Your task to perform on an android device: toggle improve location accuracy Image 0: 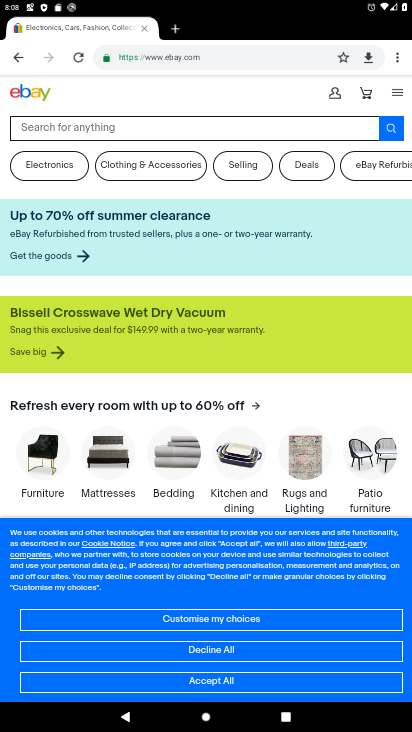
Step 0: press home button
Your task to perform on an android device: toggle improve location accuracy Image 1: 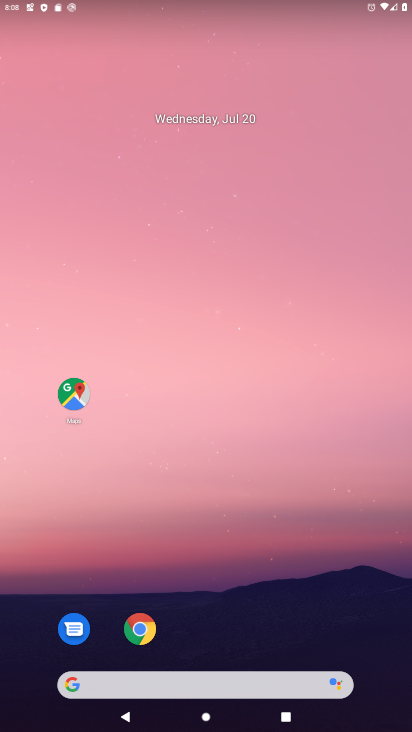
Step 1: drag from (193, 639) to (159, 257)
Your task to perform on an android device: toggle improve location accuracy Image 2: 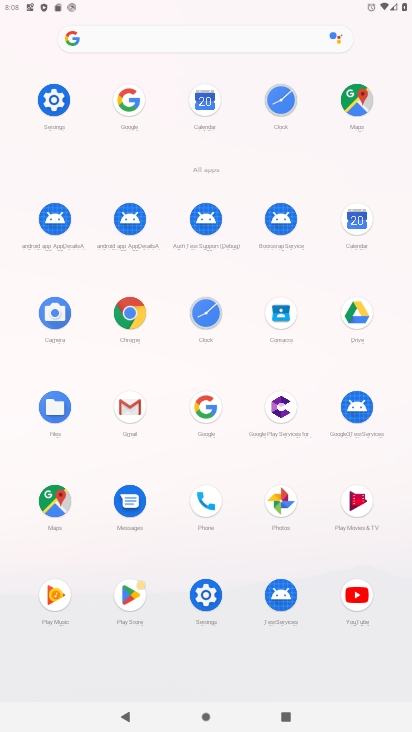
Step 2: click (47, 100)
Your task to perform on an android device: toggle improve location accuracy Image 3: 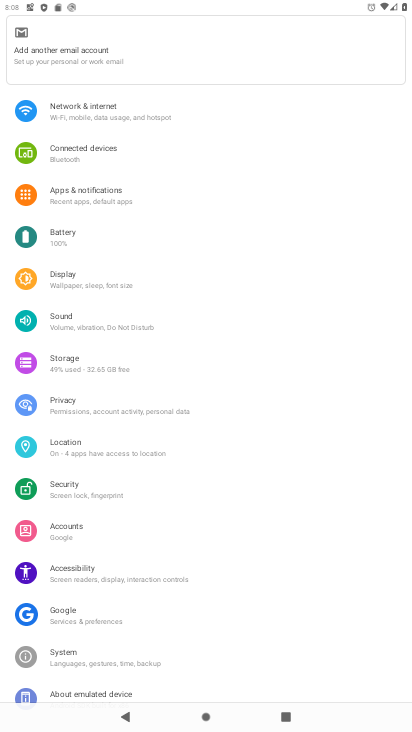
Step 3: click (78, 451)
Your task to perform on an android device: toggle improve location accuracy Image 4: 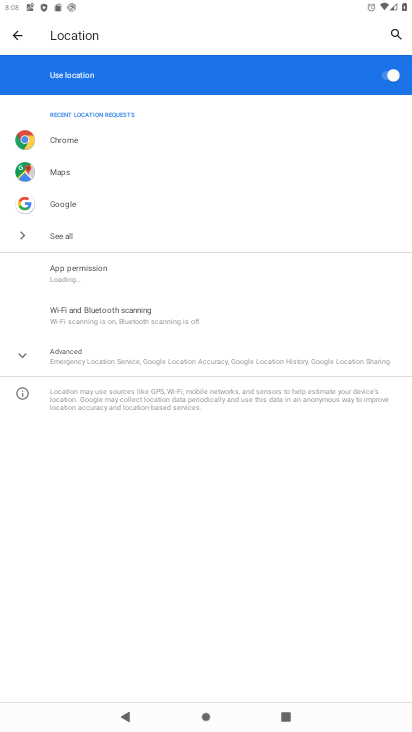
Step 4: click (85, 356)
Your task to perform on an android device: toggle improve location accuracy Image 5: 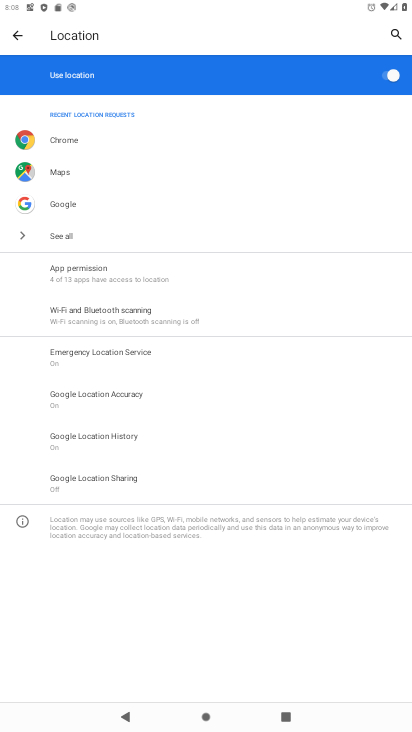
Step 5: click (101, 389)
Your task to perform on an android device: toggle improve location accuracy Image 6: 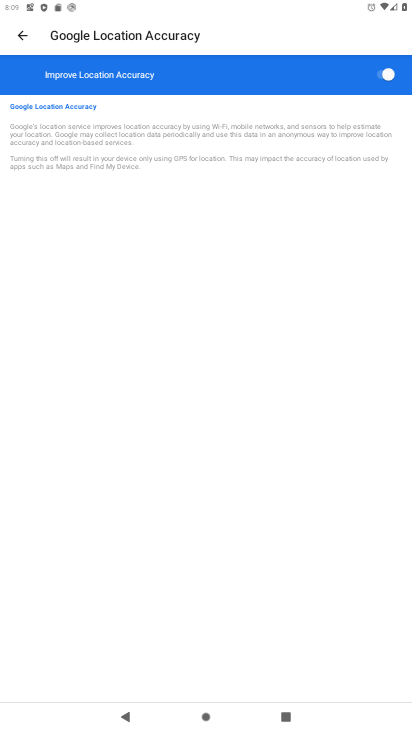
Step 6: click (376, 76)
Your task to perform on an android device: toggle improve location accuracy Image 7: 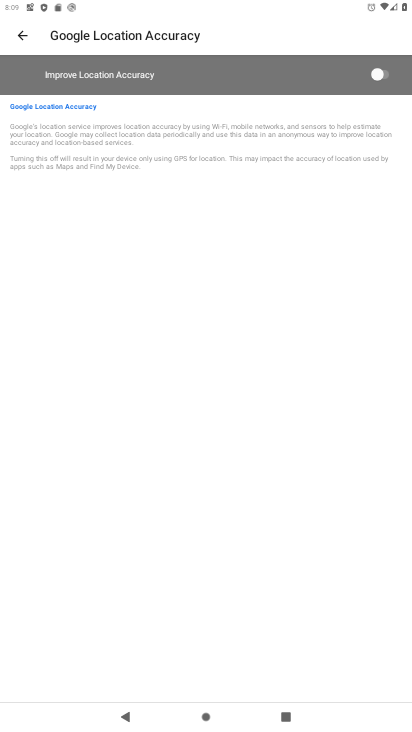
Step 7: task complete